Your task to perform on an android device: toggle wifi Image 0: 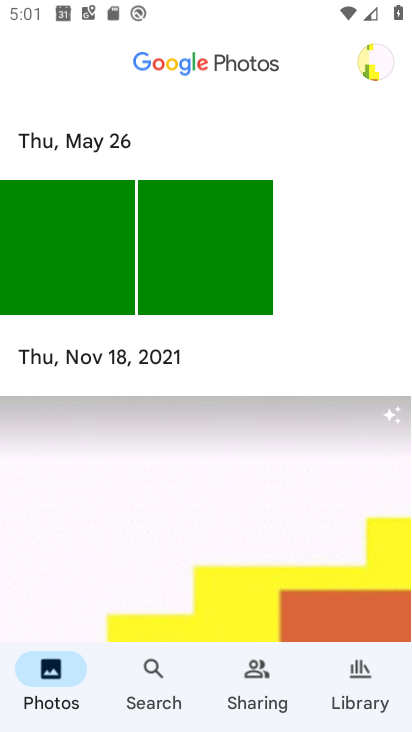
Step 0: press home button
Your task to perform on an android device: toggle wifi Image 1: 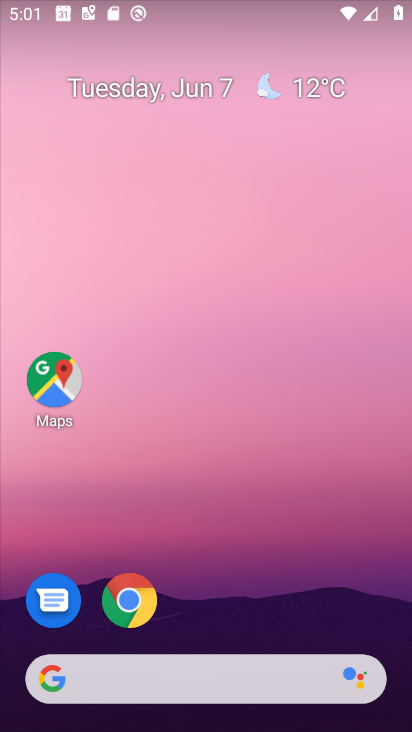
Step 1: drag from (267, 562) to (256, 76)
Your task to perform on an android device: toggle wifi Image 2: 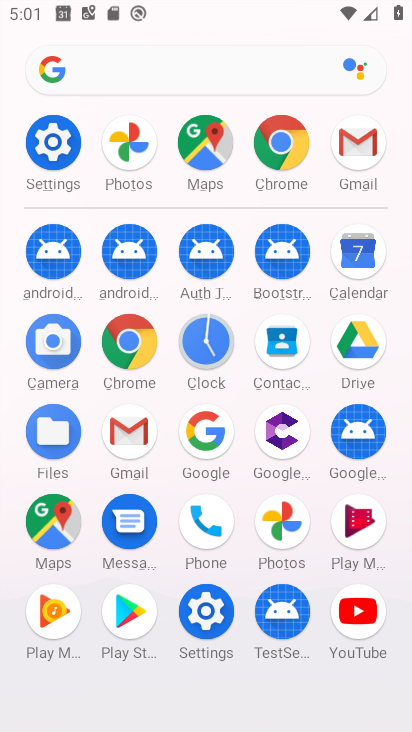
Step 2: click (59, 138)
Your task to perform on an android device: toggle wifi Image 3: 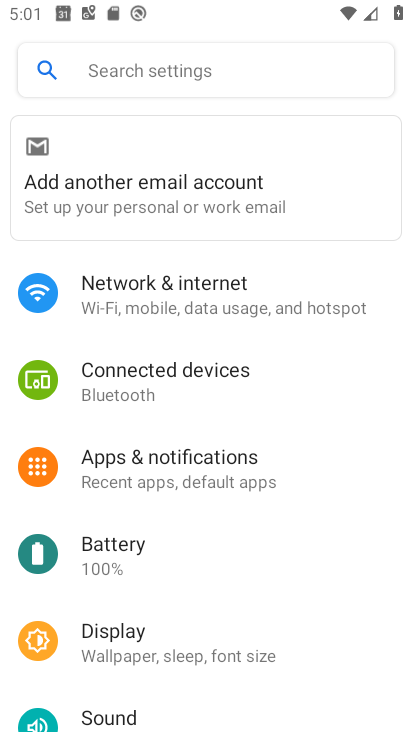
Step 3: drag from (294, 585) to (293, 290)
Your task to perform on an android device: toggle wifi Image 4: 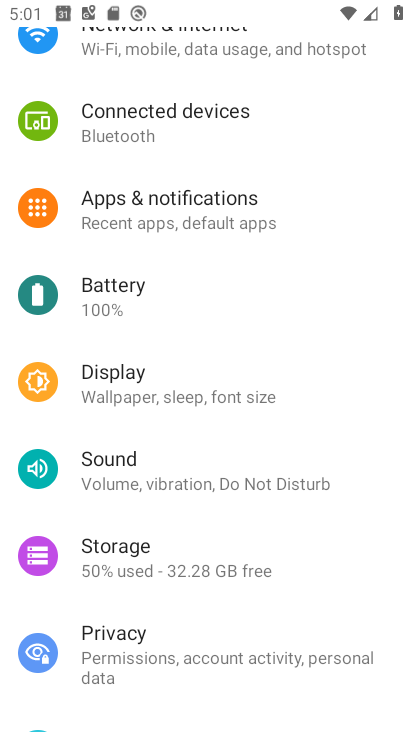
Step 4: click (207, 55)
Your task to perform on an android device: toggle wifi Image 5: 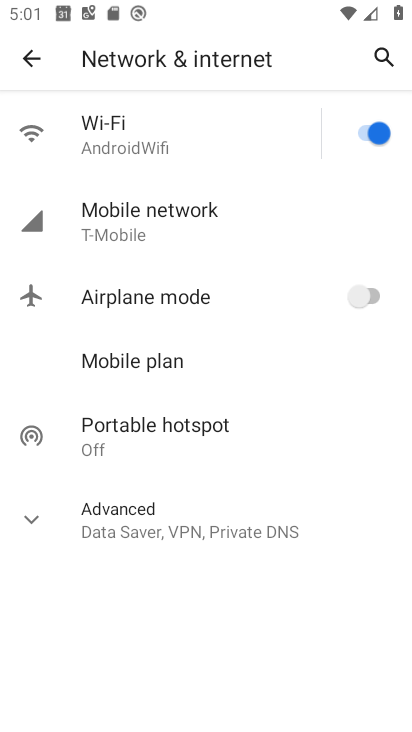
Step 5: click (359, 124)
Your task to perform on an android device: toggle wifi Image 6: 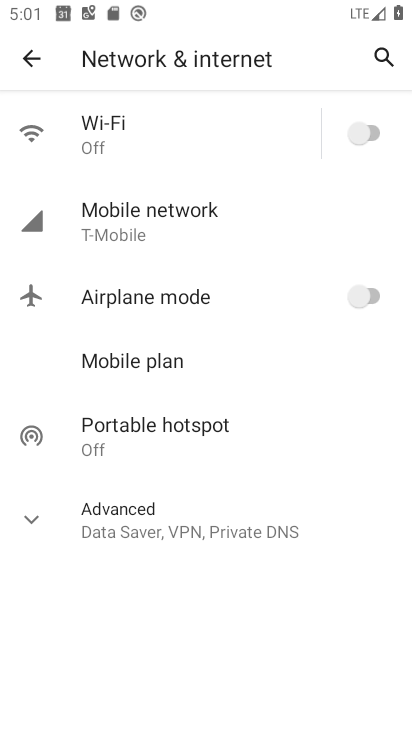
Step 6: task complete